Your task to perform on an android device: turn off location history Image 0: 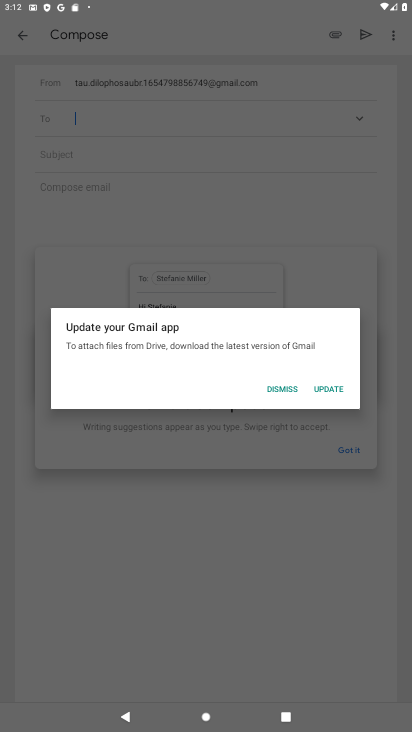
Step 0: click (324, 391)
Your task to perform on an android device: turn off location history Image 1: 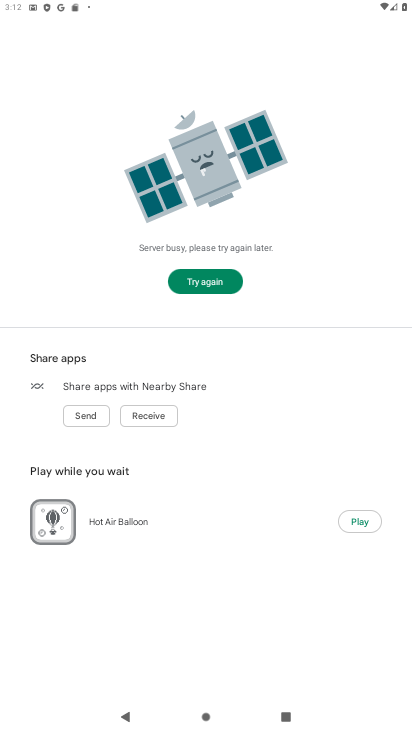
Step 1: press home button
Your task to perform on an android device: turn off location history Image 2: 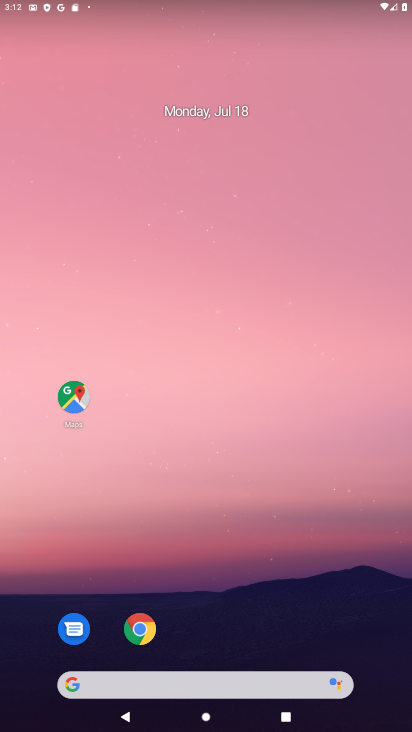
Step 2: drag from (204, 511) to (226, 262)
Your task to perform on an android device: turn off location history Image 3: 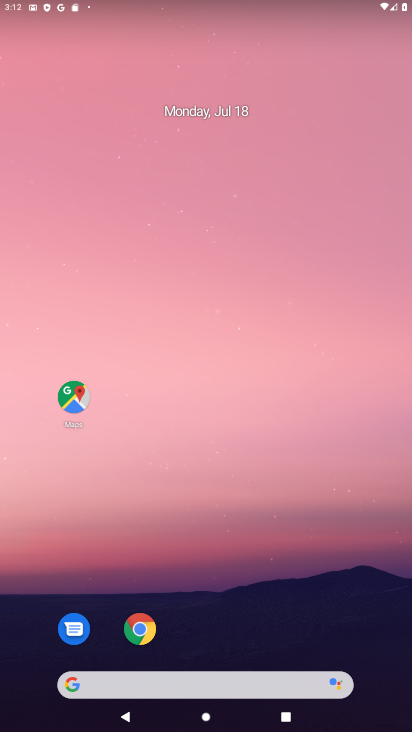
Step 3: drag from (219, 669) to (217, 209)
Your task to perform on an android device: turn off location history Image 4: 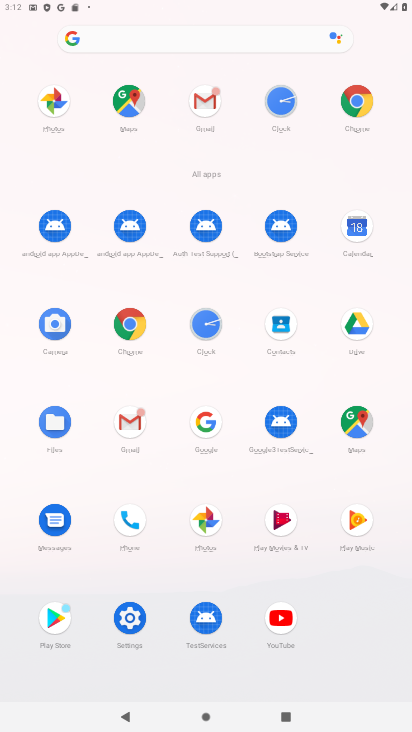
Step 4: click (122, 625)
Your task to perform on an android device: turn off location history Image 5: 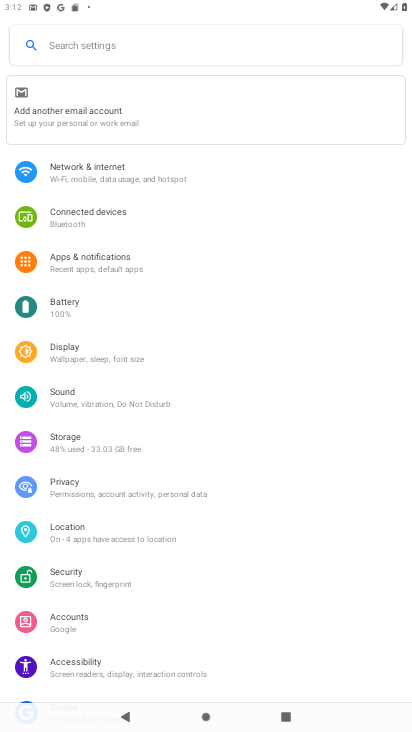
Step 5: click (78, 522)
Your task to perform on an android device: turn off location history Image 6: 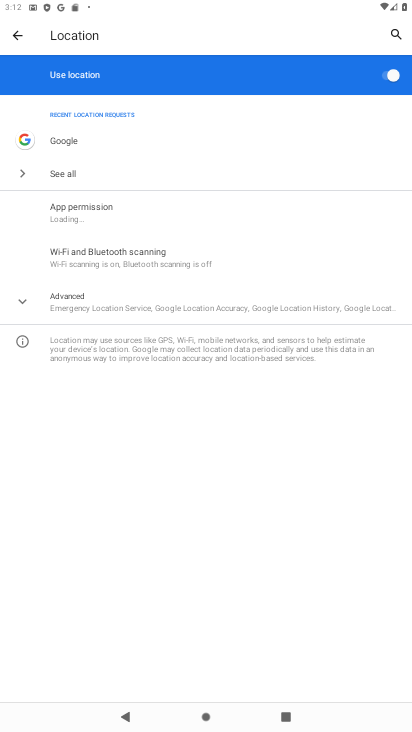
Step 6: click (78, 300)
Your task to perform on an android device: turn off location history Image 7: 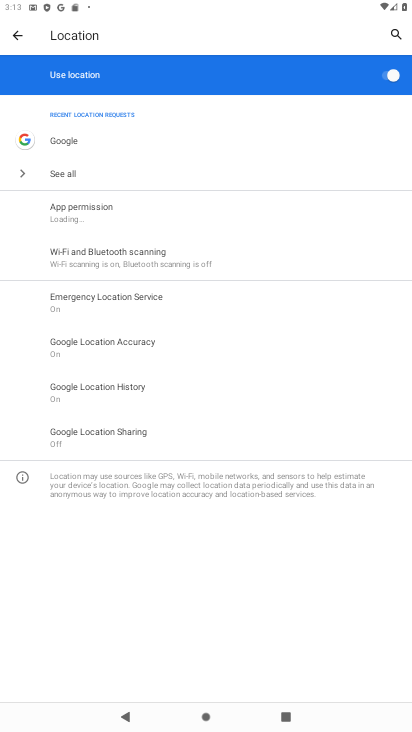
Step 7: click (125, 381)
Your task to perform on an android device: turn off location history Image 8: 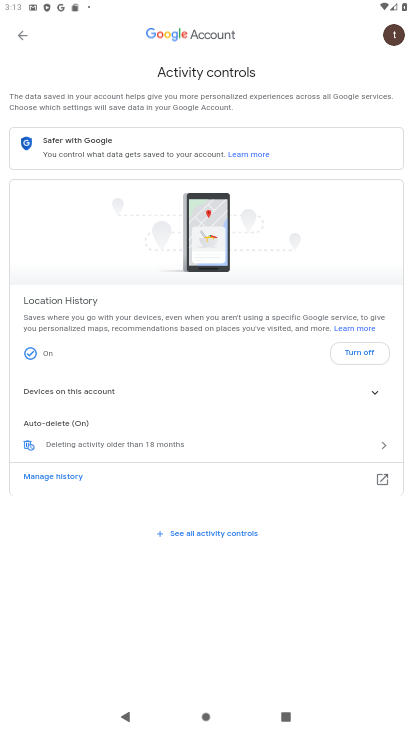
Step 8: click (370, 351)
Your task to perform on an android device: turn off location history Image 9: 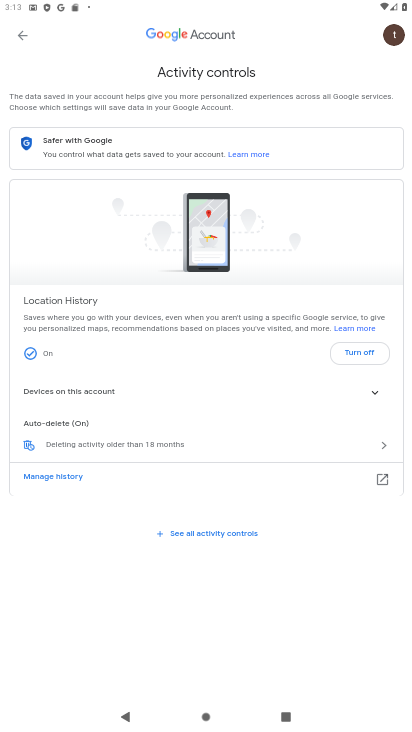
Step 9: click (364, 347)
Your task to perform on an android device: turn off location history Image 10: 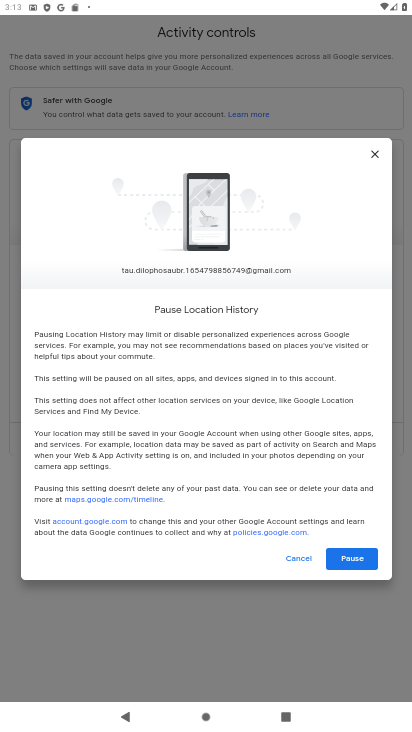
Step 10: click (352, 561)
Your task to perform on an android device: turn off location history Image 11: 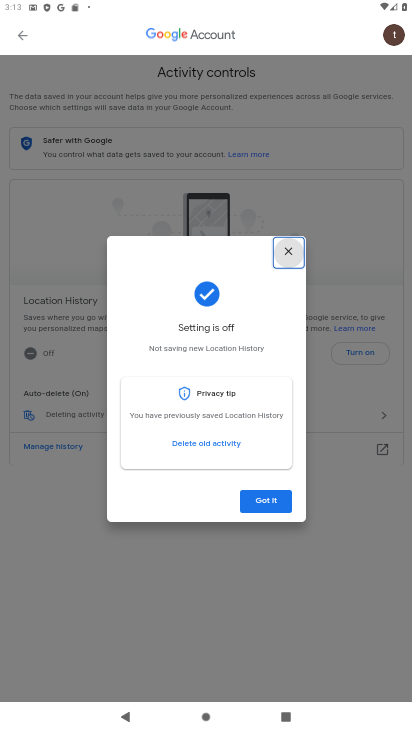
Step 11: click (258, 497)
Your task to perform on an android device: turn off location history Image 12: 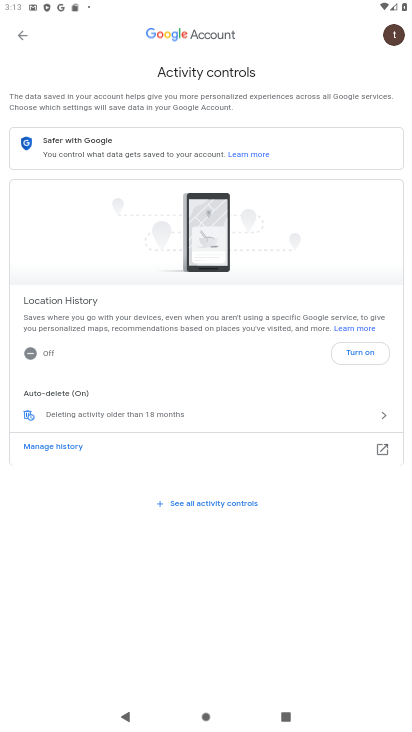
Step 12: task complete